Your task to perform on an android device: Go to battery settings Image 0: 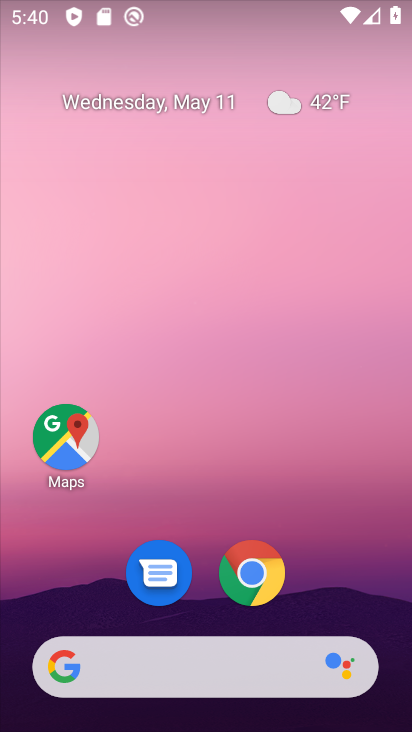
Step 0: drag from (302, 595) to (295, 205)
Your task to perform on an android device: Go to battery settings Image 1: 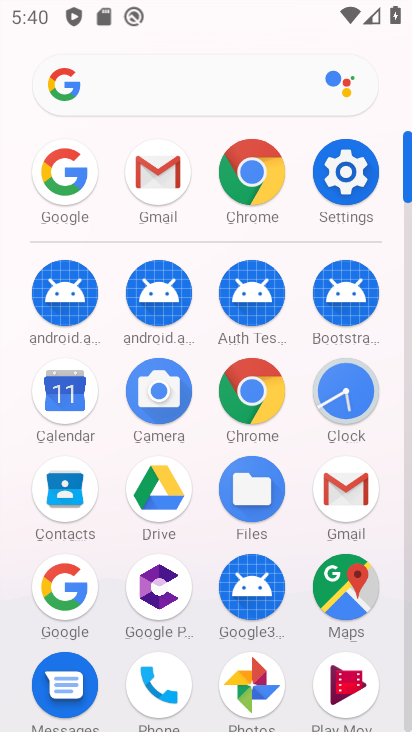
Step 1: click (340, 179)
Your task to perform on an android device: Go to battery settings Image 2: 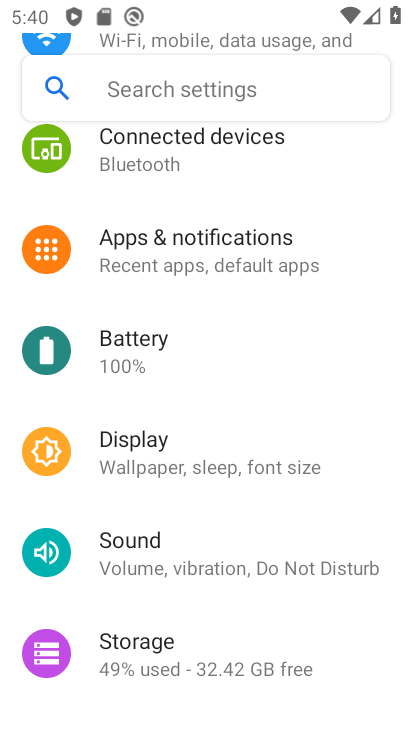
Step 2: click (153, 356)
Your task to perform on an android device: Go to battery settings Image 3: 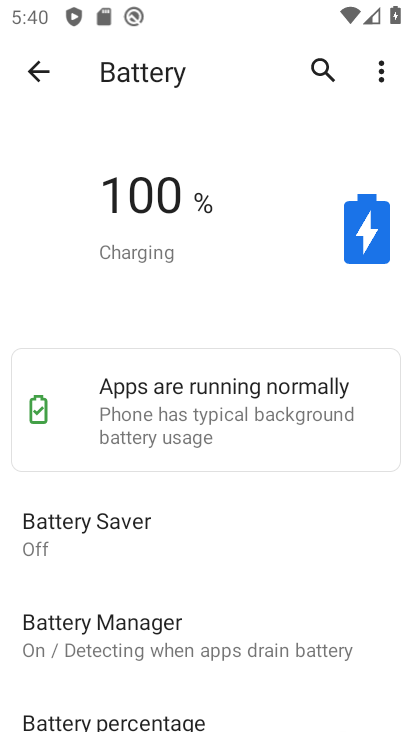
Step 3: task complete